Your task to perform on an android device: Open location settings Image 0: 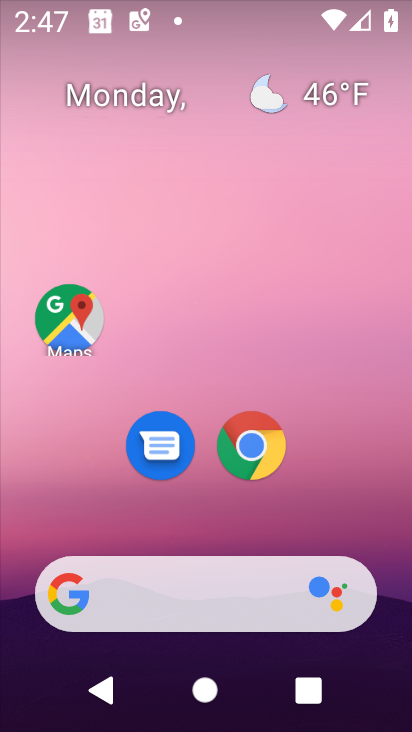
Step 0: drag from (321, 511) to (319, 163)
Your task to perform on an android device: Open location settings Image 1: 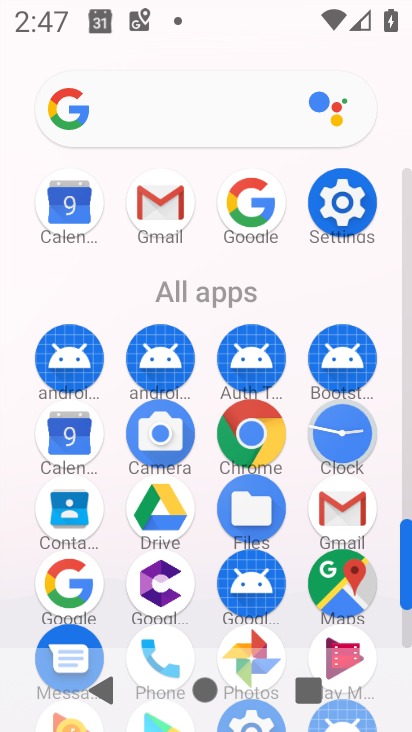
Step 1: click (356, 202)
Your task to perform on an android device: Open location settings Image 2: 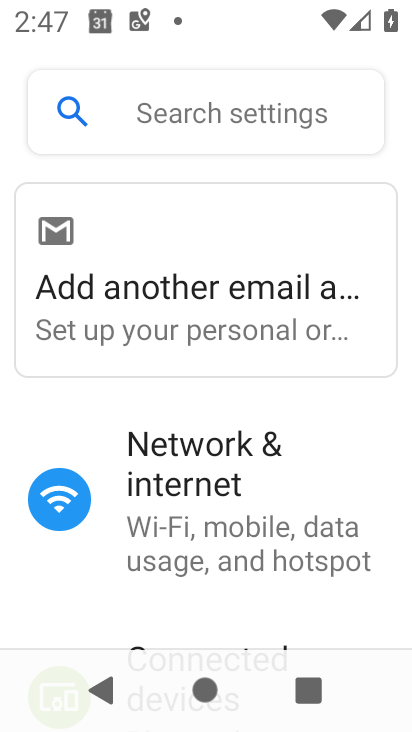
Step 2: drag from (269, 545) to (264, 88)
Your task to perform on an android device: Open location settings Image 3: 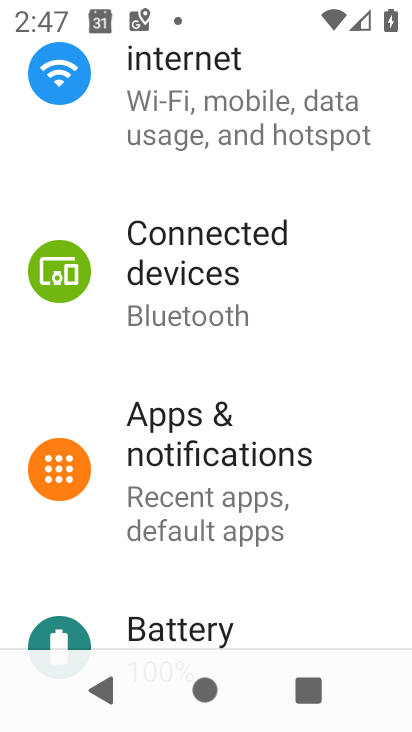
Step 3: drag from (280, 523) to (268, 136)
Your task to perform on an android device: Open location settings Image 4: 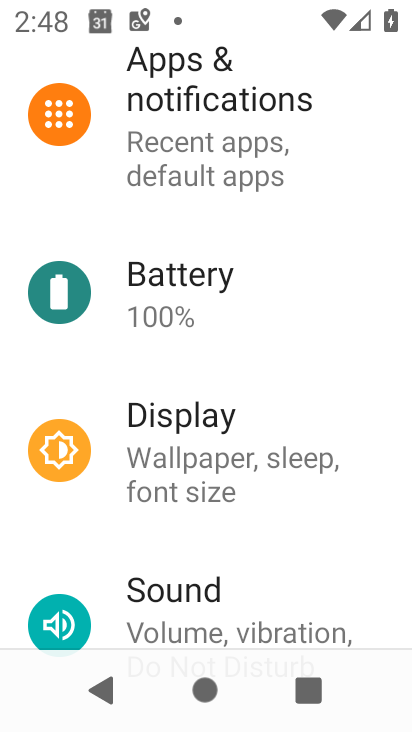
Step 4: drag from (271, 580) to (271, 256)
Your task to perform on an android device: Open location settings Image 5: 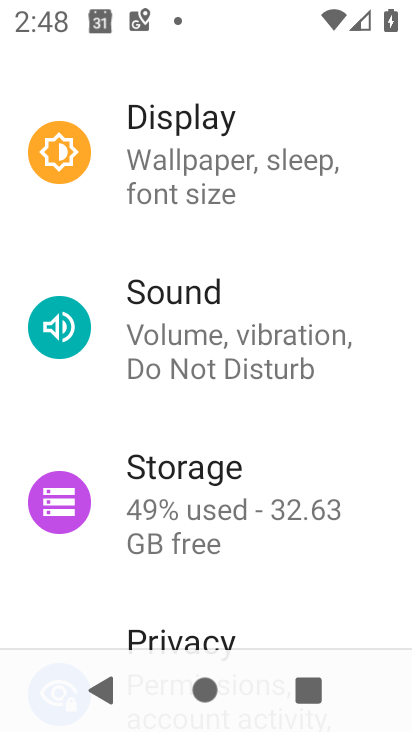
Step 5: drag from (277, 609) to (264, 201)
Your task to perform on an android device: Open location settings Image 6: 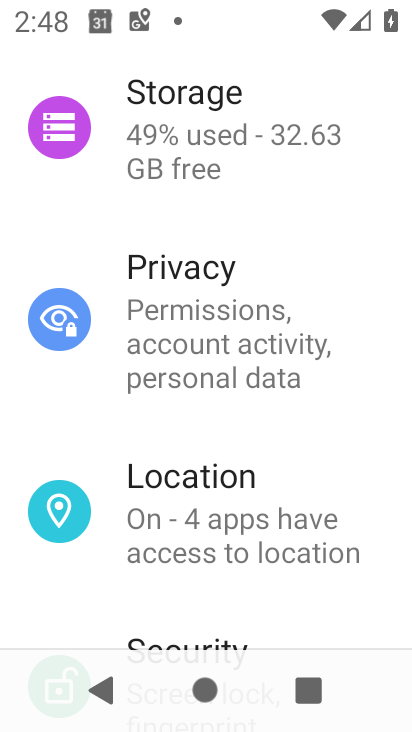
Step 6: click (249, 534)
Your task to perform on an android device: Open location settings Image 7: 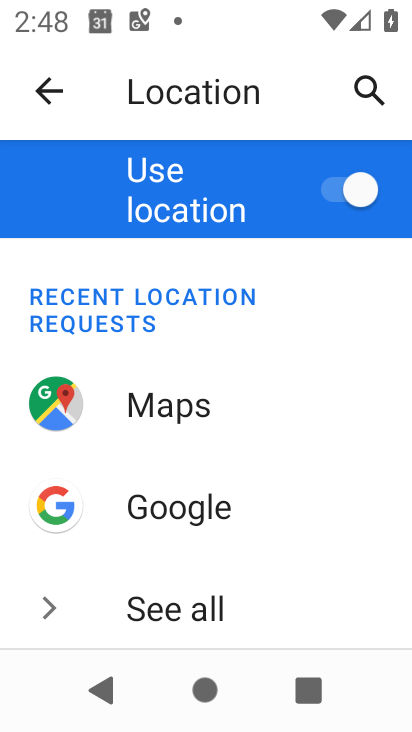
Step 7: task complete